Your task to perform on an android device: empty trash in google photos Image 0: 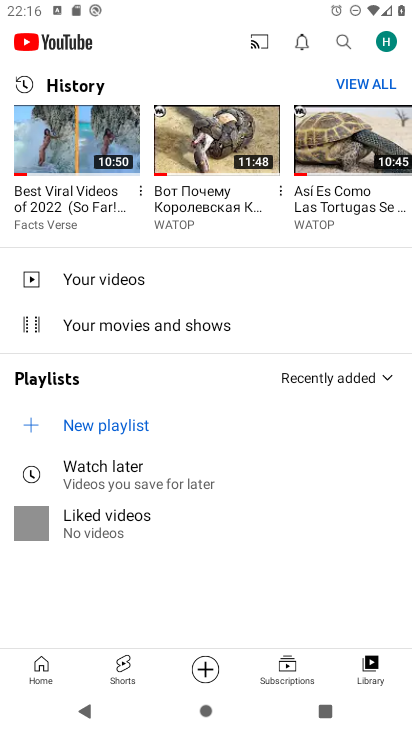
Step 0: press home button
Your task to perform on an android device: empty trash in google photos Image 1: 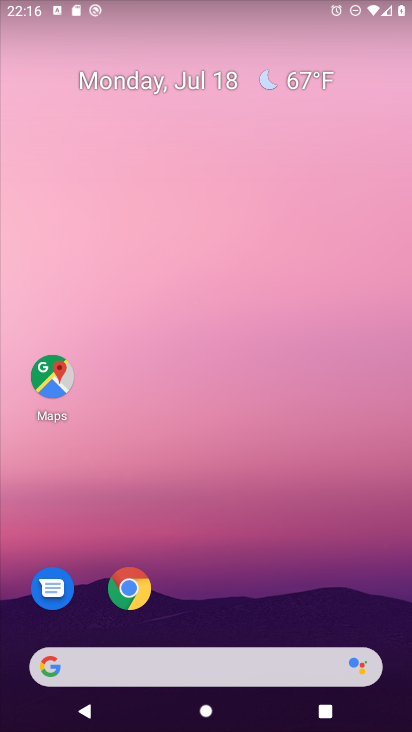
Step 1: drag from (374, 613) to (316, 252)
Your task to perform on an android device: empty trash in google photos Image 2: 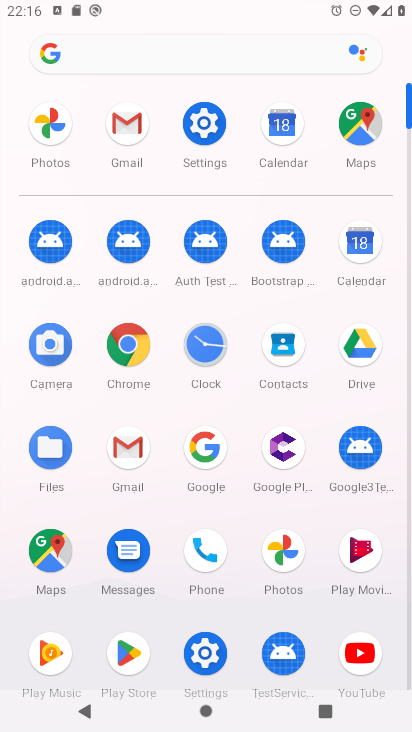
Step 2: click (283, 547)
Your task to perform on an android device: empty trash in google photos Image 3: 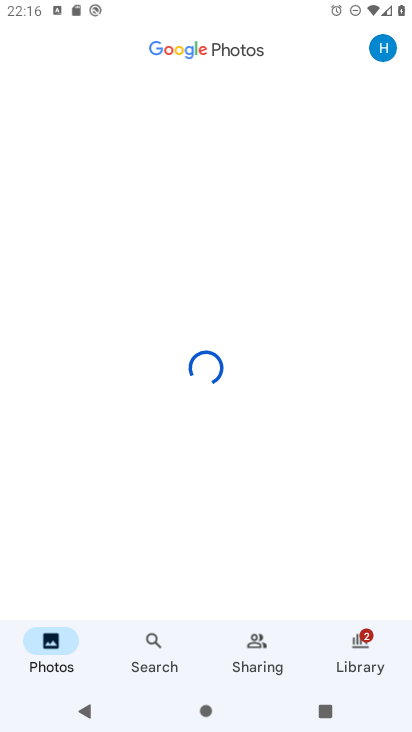
Step 3: click (362, 642)
Your task to perform on an android device: empty trash in google photos Image 4: 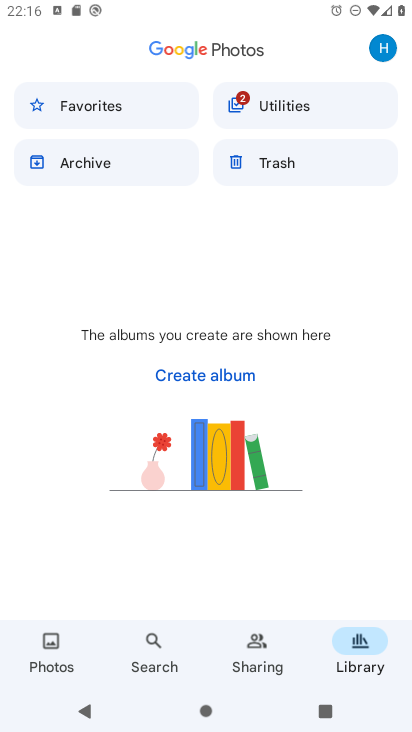
Step 4: click (276, 156)
Your task to perform on an android device: empty trash in google photos Image 5: 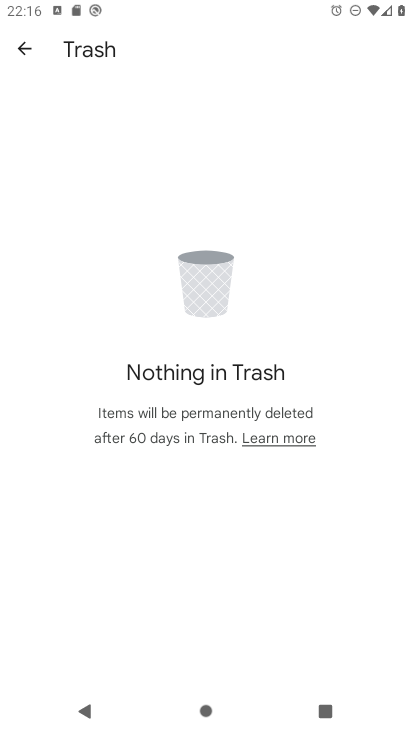
Step 5: task complete